Your task to perform on an android device: install app "The Home Depot" Image 0: 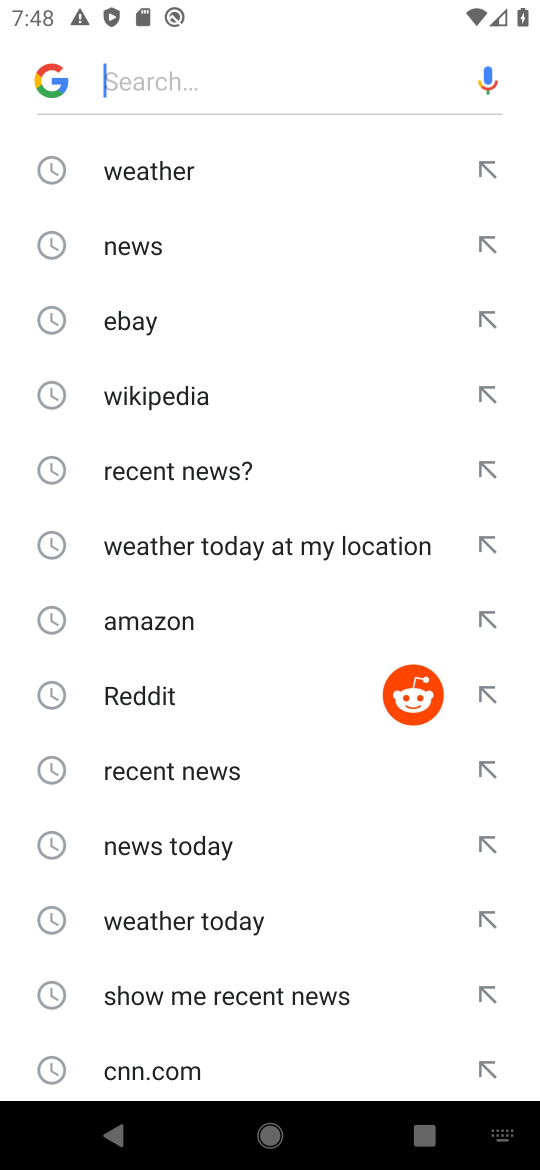
Step 0: press home button
Your task to perform on an android device: install app "The Home Depot" Image 1: 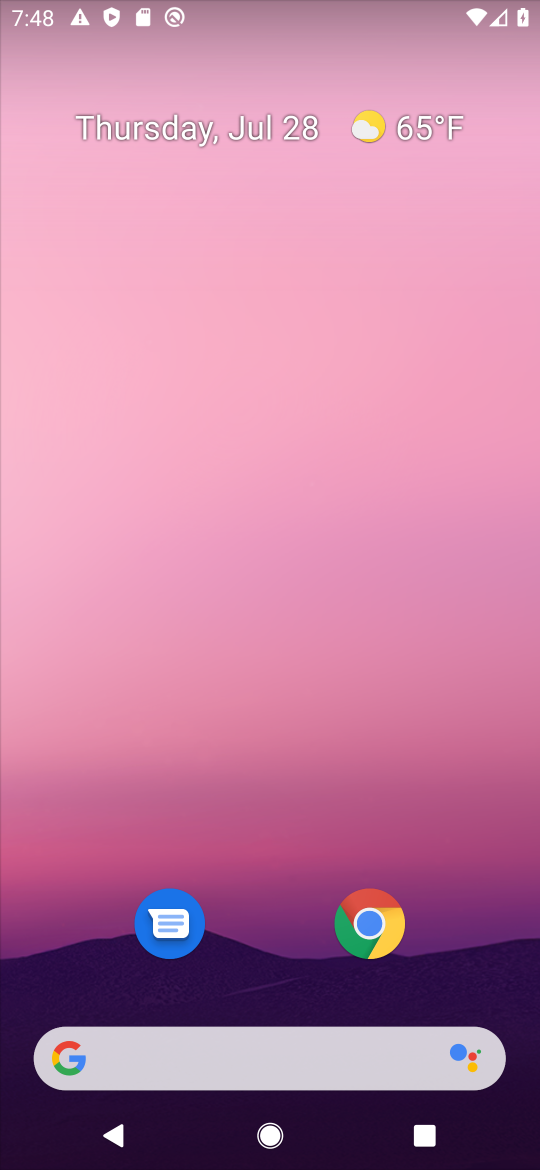
Step 1: drag from (419, 828) to (399, 4)
Your task to perform on an android device: install app "The Home Depot" Image 2: 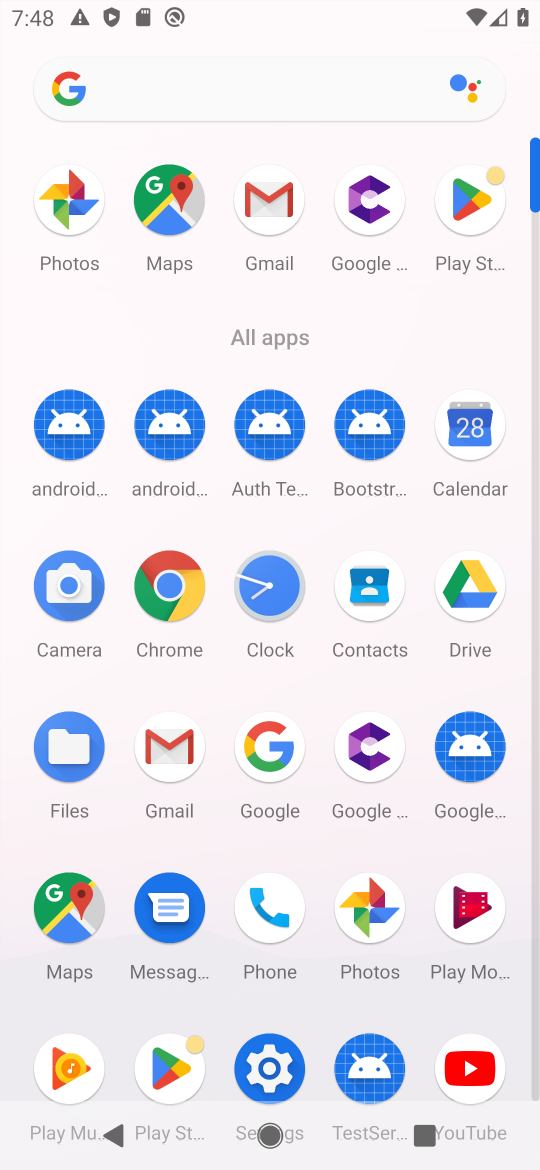
Step 2: click (469, 189)
Your task to perform on an android device: install app "The Home Depot" Image 3: 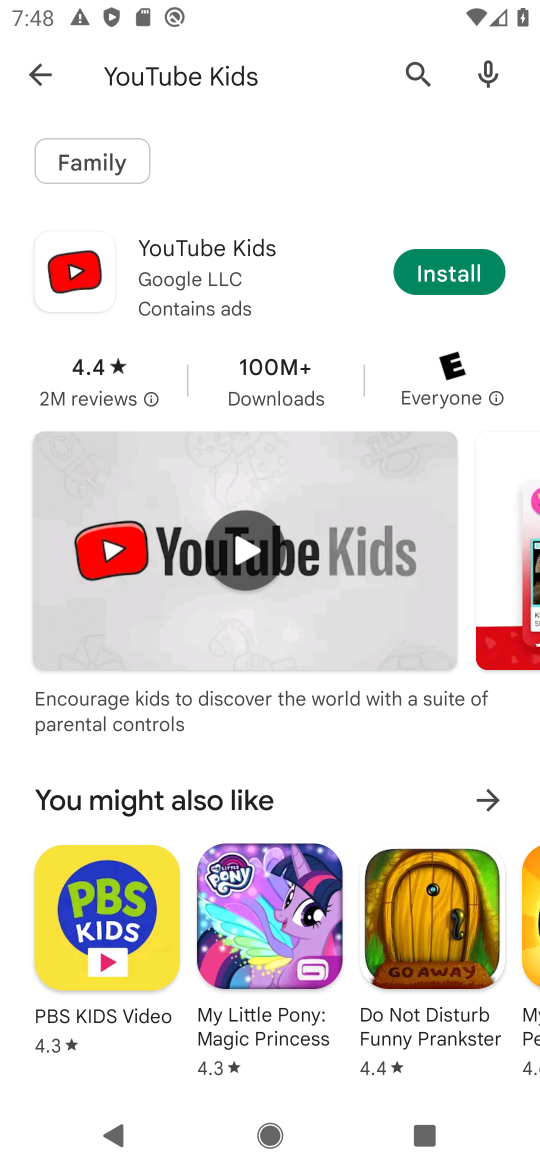
Step 3: click (310, 86)
Your task to perform on an android device: install app "The Home Depot" Image 4: 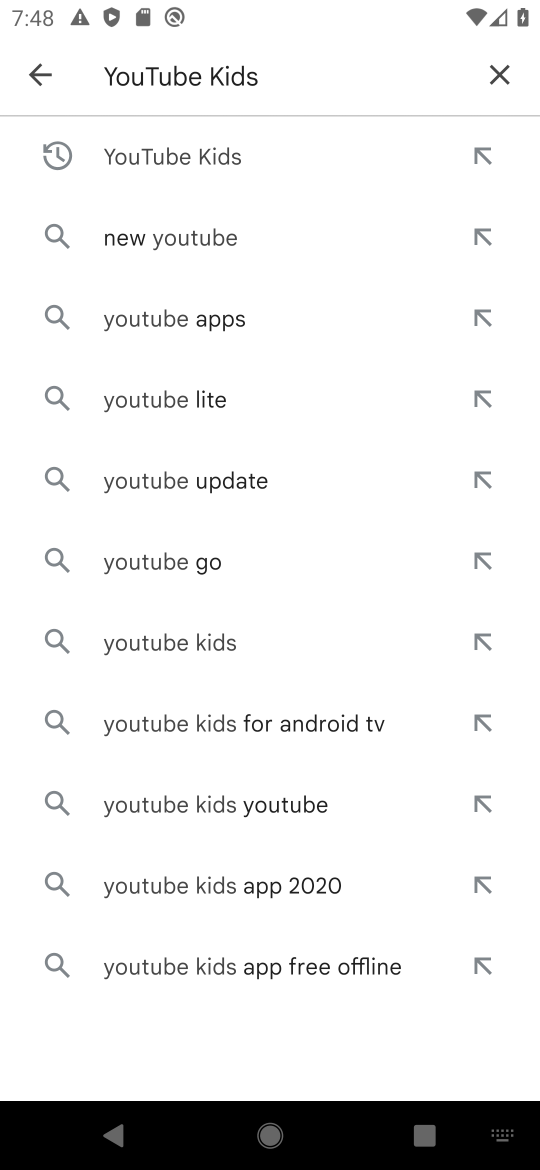
Step 4: click (499, 67)
Your task to perform on an android device: install app "The Home Depot" Image 5: 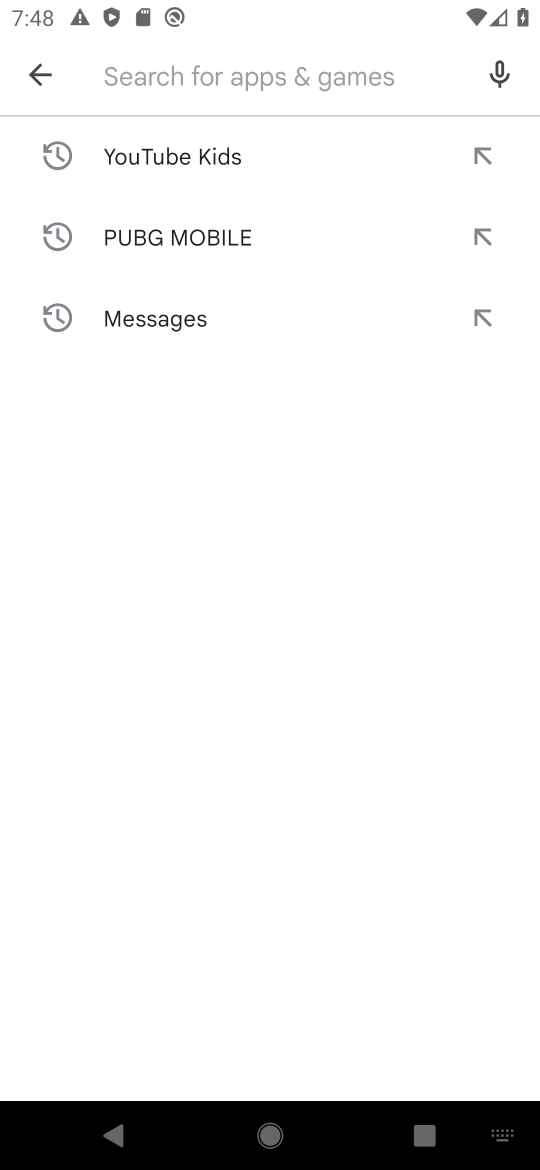
Step 5: type ""
Your task to perform on an android device: install app "The Home Depot" Image 6: 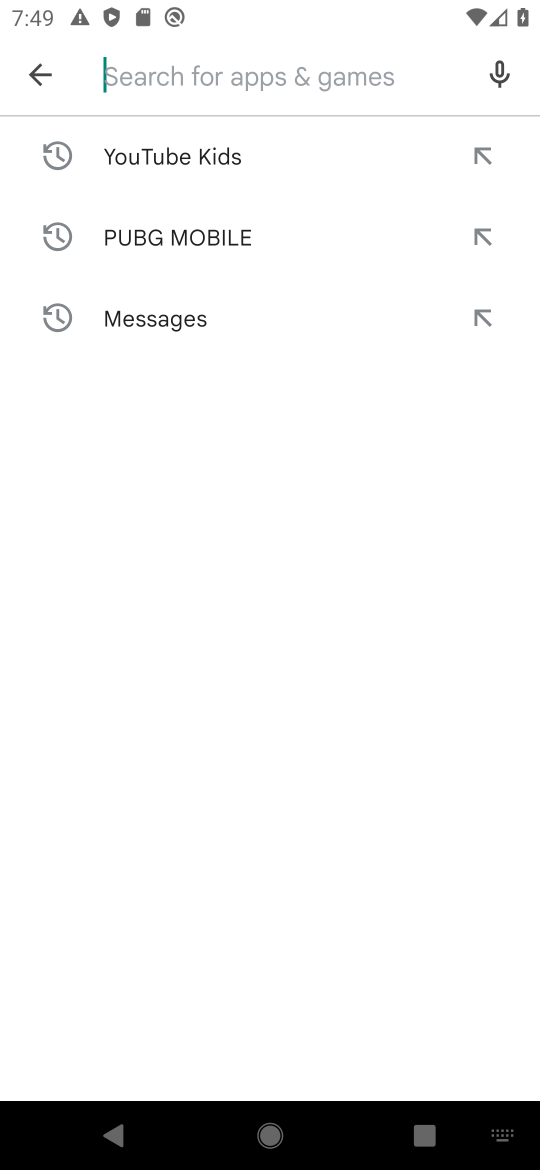
Step 6: type "The Home Depot"
Your task to perform on an android device: install app "The Home Depot" Image 7: 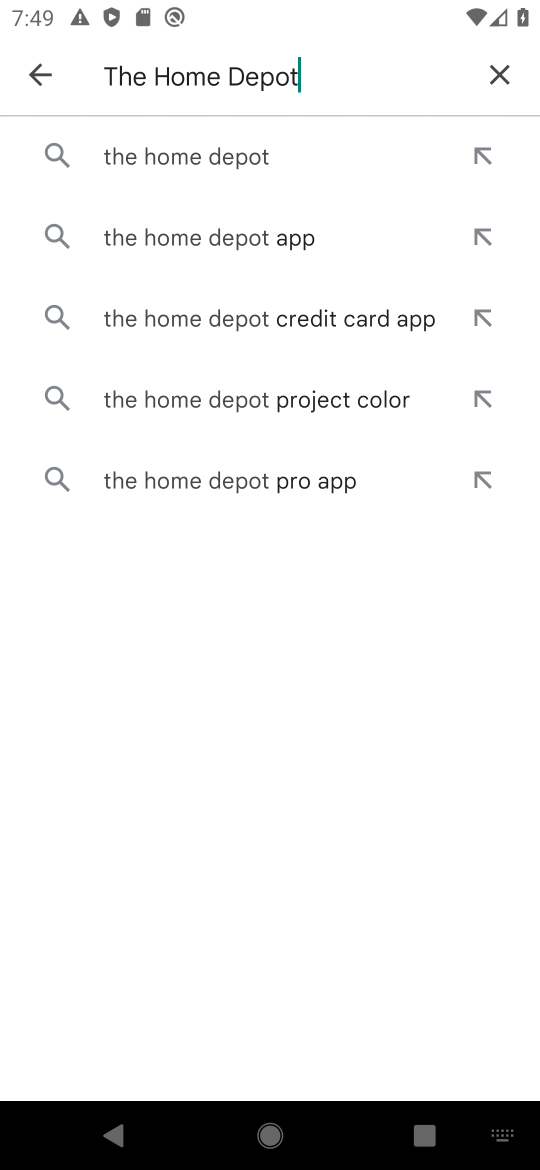
Step 7: press enter
Your task to perform on an android device: install app "The Home Depot" Image 8: 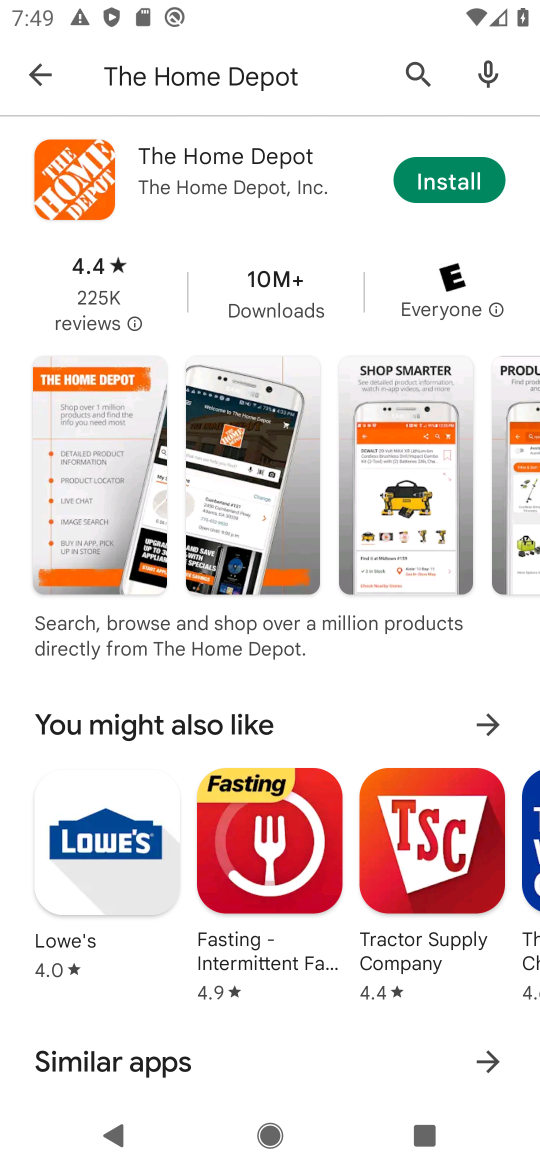
Step 8: click (464, 166)
Your task to perform on an android device: install app "The Home Depot" Image 9: 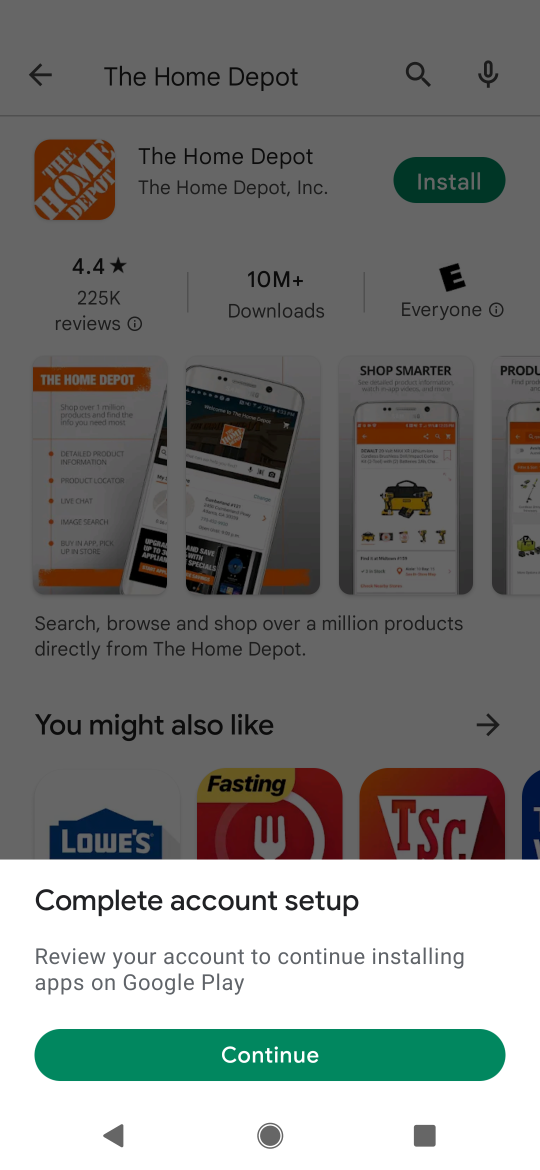
Step 9: click (417, 1040)
Your task to perform on an android device: install app "The Home Depot" Image 10: 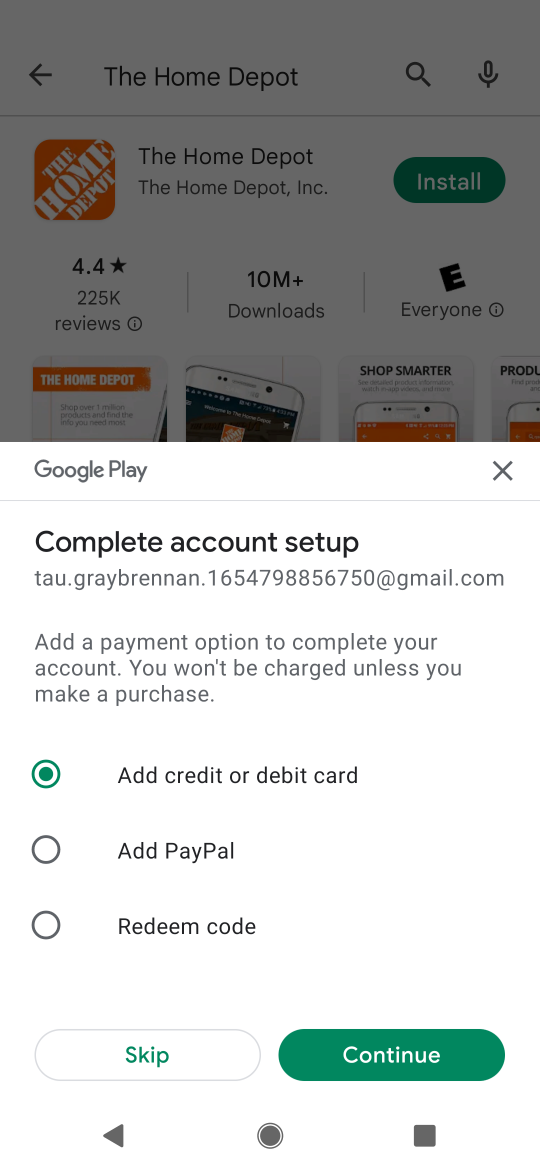
Step 10: click (151, 1042)
Your task to perform on an android device: install app "The Home Depot" Image 11: 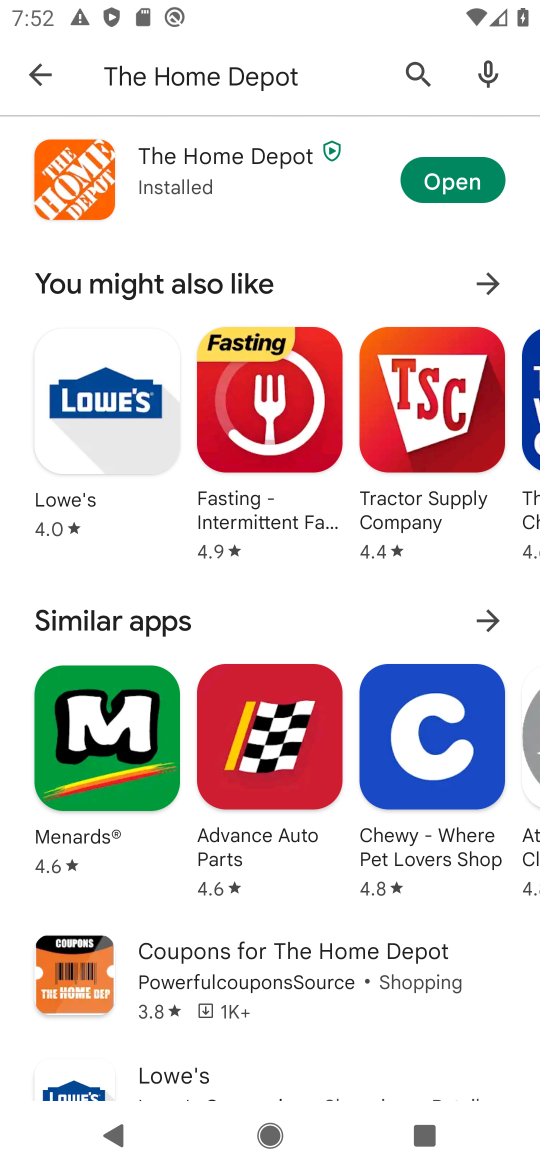
Step 11: task complete